Your task to perform on an android device: Open notification settings Image 0: 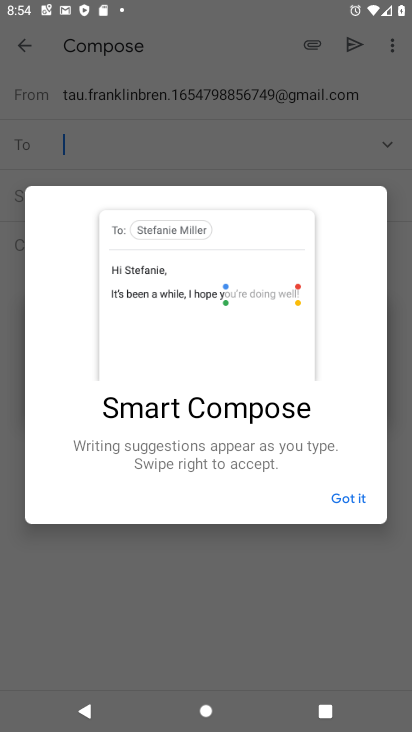
Step 0: press home button
Your task to perform on an android device: Open notification settings Image 1: 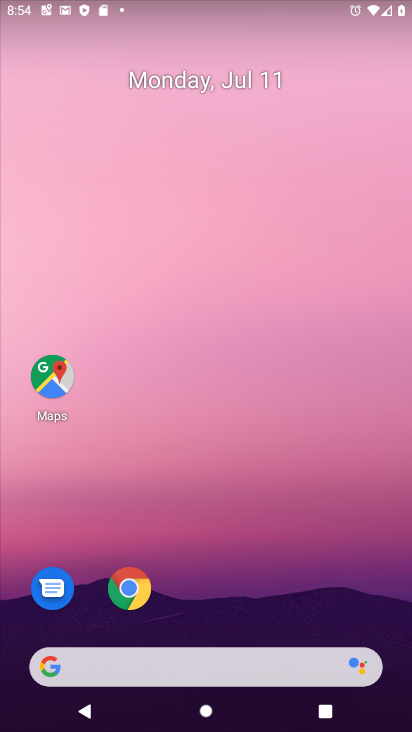
Step 1: drag from (196, 665) to (309, 114)
Your task to perform on an android device: Open notification settings Image 2: 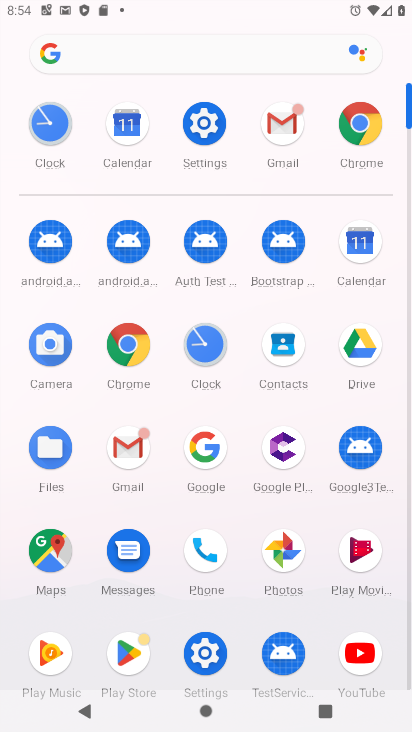
Step 2: click (200, 119)
Your task to perform on an android device: Open notification settings Image 3: 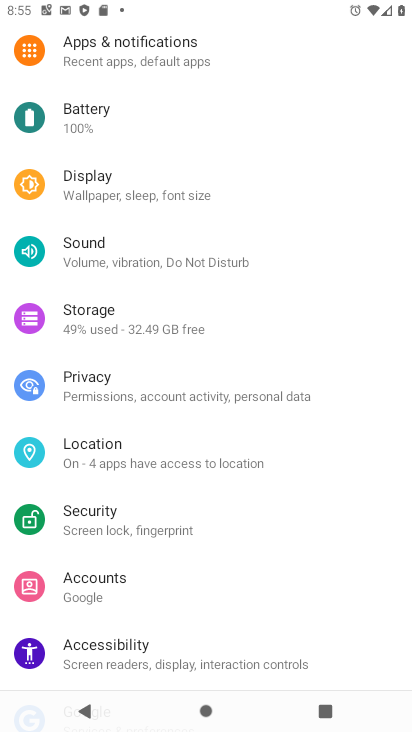
Step 3: click (172, 56)
Your task to perform on an android device: Open notification settings Image 4: 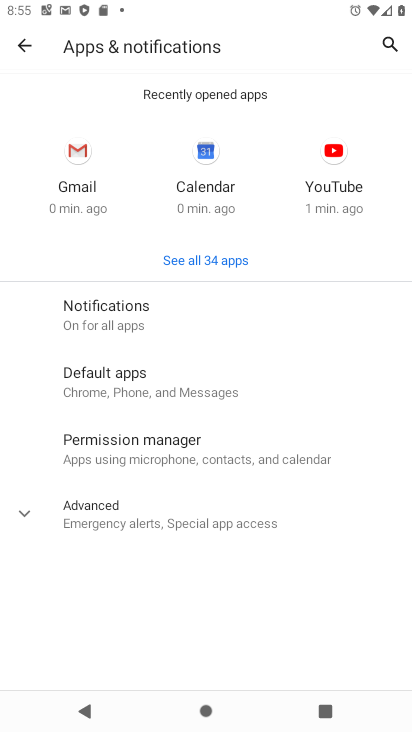
Step 4: click (125, 325)
Your task to perform on an android device: Open notification settings Image 5: 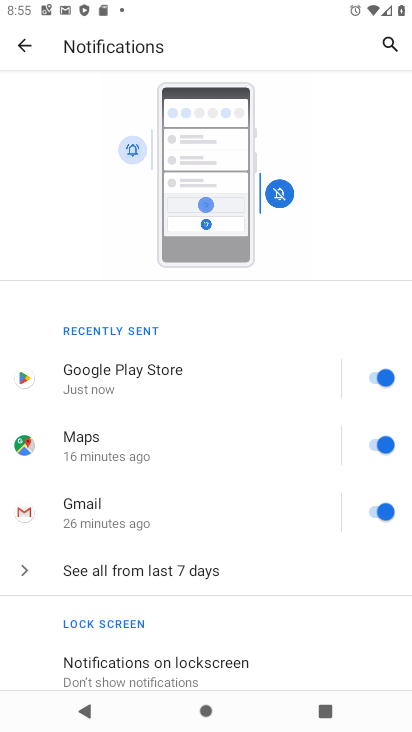
Step 5: task complete